Your task to perform on an android device: find photos in the google photos app Image 0: 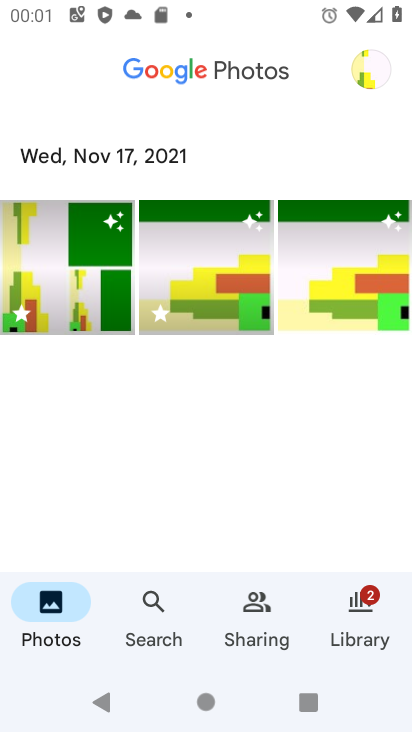
Step 0: press home button
Your task to perform on an android device: find photos in the google photos app Image 1: 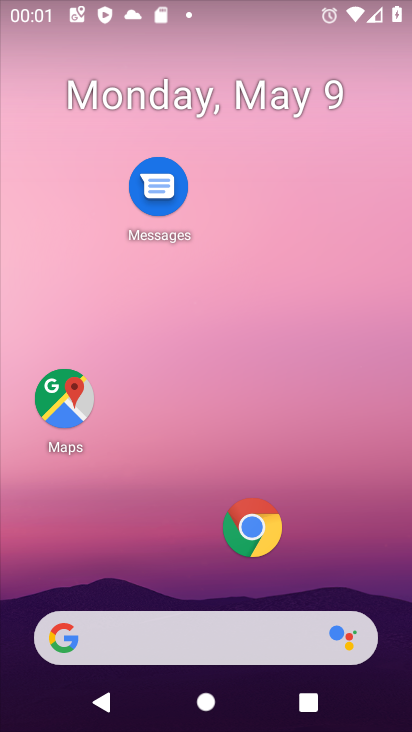
Step 1: drag from (163, 538) to (189, 74)
Your task to perform on an android device: find photos in the google photos app Image 2: 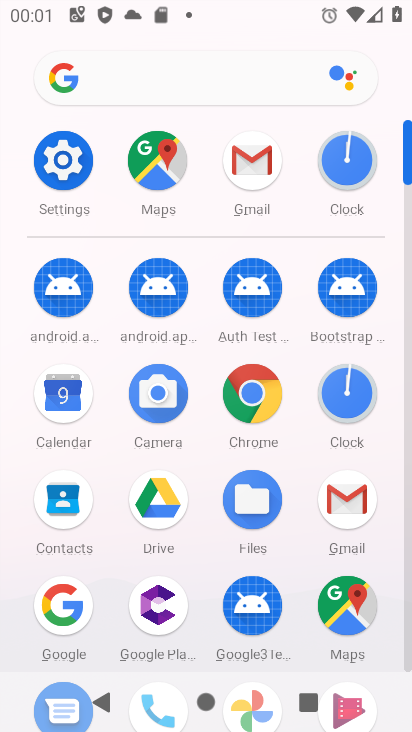
Step 2: drag from (304, 585) to (298, 279)
Your task to perform on an android device: find photos in the google photos app Image 3: 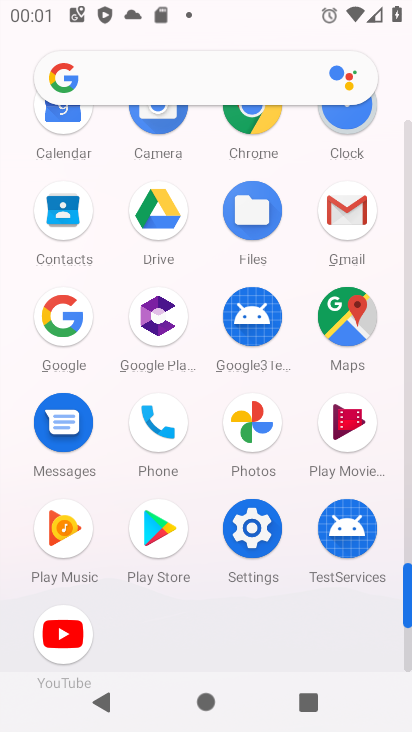
Step 3: click (248, 425)
Your task to perform on an android device: find photos in the google photos app Image 4: 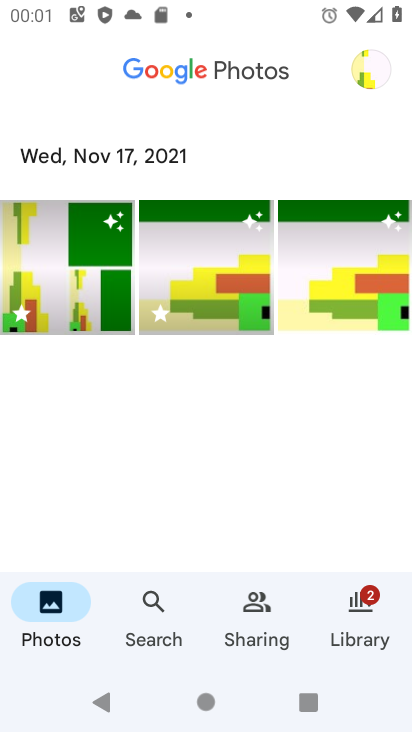
Step 4: task complete